Your task to perform on an android device: Open maps Image 0: 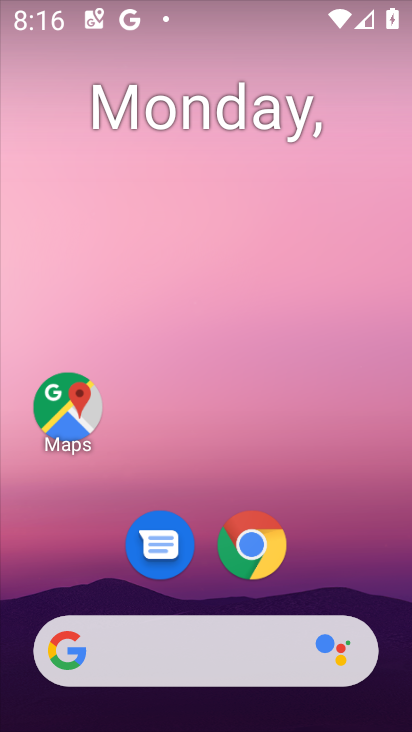
Step 0: click (66, 422)
Your task to perform on an android device: Open maps Image 1: 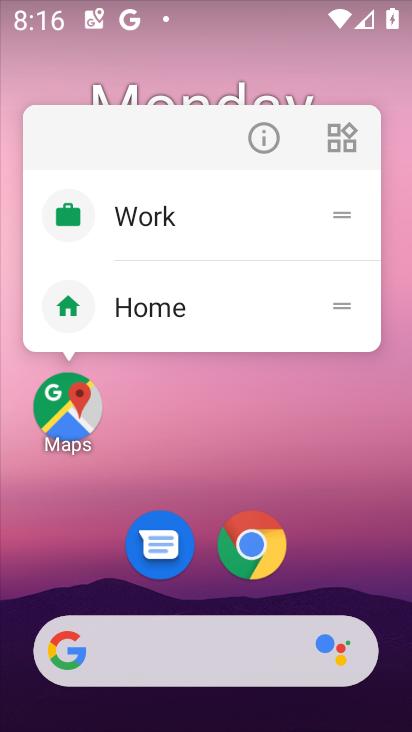
Step 1: click (52, 410)
Your task to perform on an android device: Open maps Image 2: 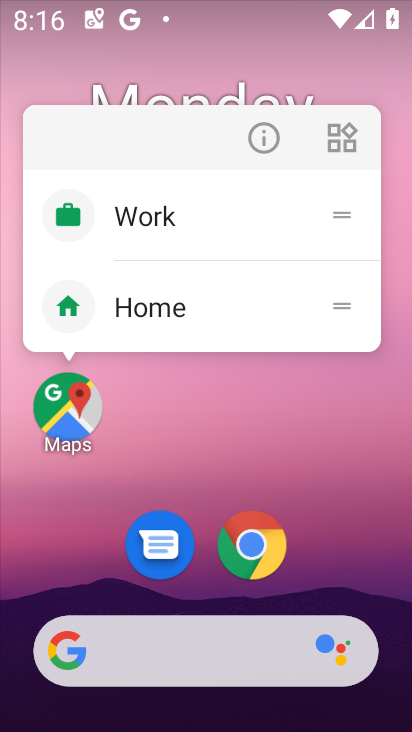
Step 2: click (73, 405)
Your task to perform on an android device: Open maps Image 3: 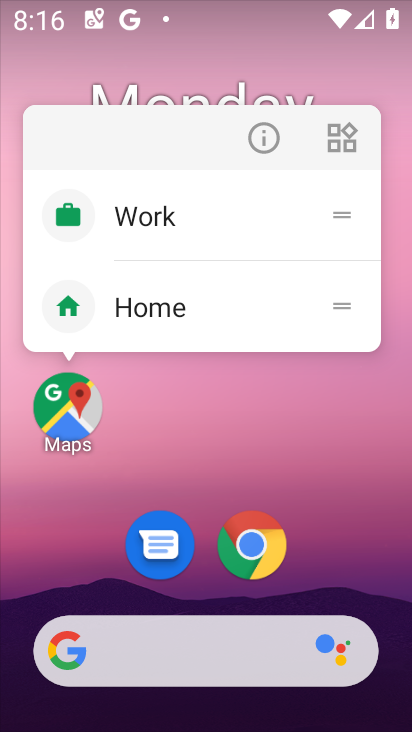
Step 3: click (67, 413)
Your task to perform on an android device: Open maps Image 4: 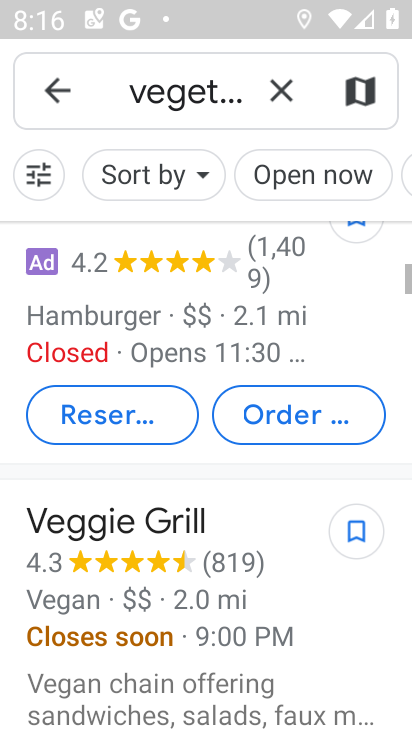
Step 4: click (51, 92)
Your task to perform on an android device: Open maps Image 5: 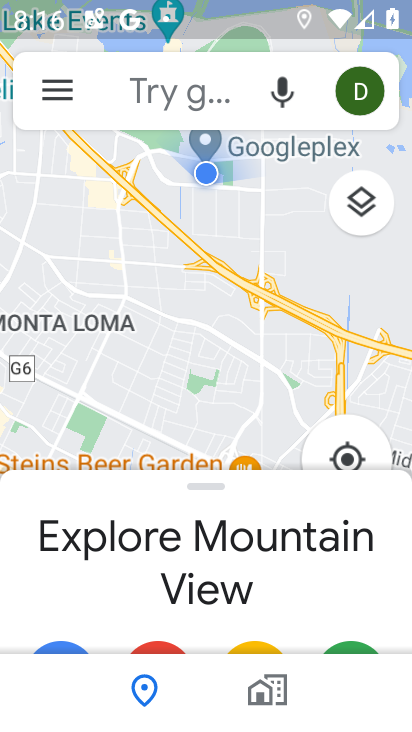
Step 5: task complete